Your task to perform on an android device: toggle notifications settings in the gmail app Image 0: 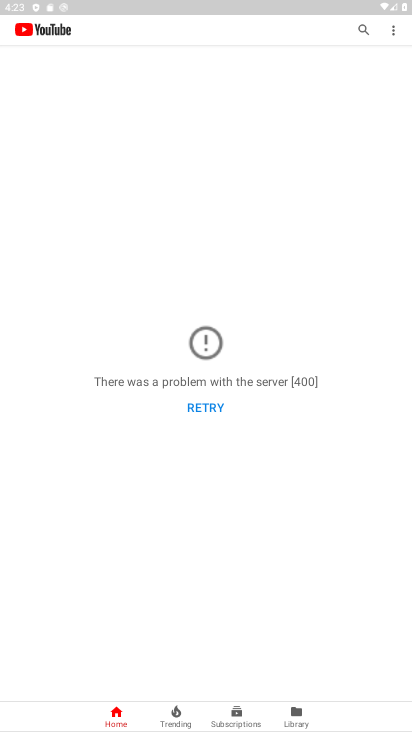
Step 0: press home button
Your task to perform on an android device: toggle notifications settings in the gmail app Image 1: 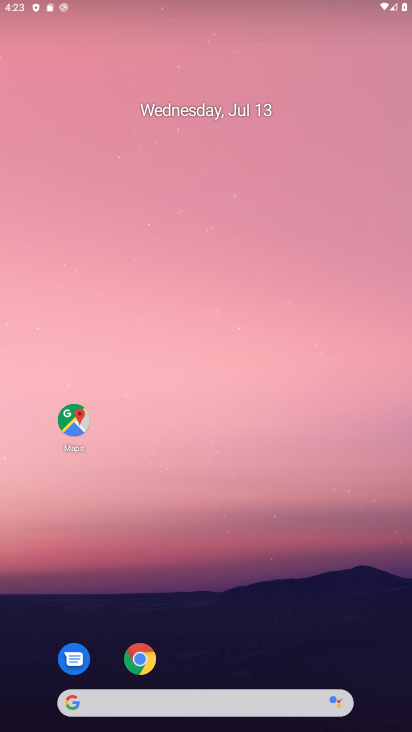
Step 1: drag from (342, 613) to (199, 14)
Your task to perform on an android device: toggle notifications settings in the gmail app Image 2: 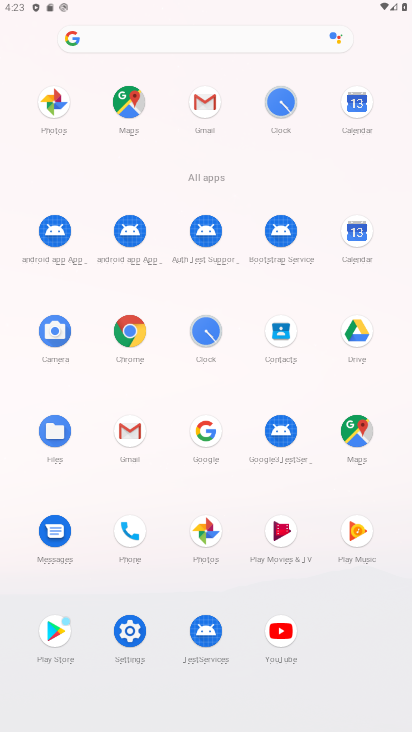
Step 2: click (210, 103)
Your task to perform on an android device: toggle notifications settings in the gmail app Image 3: 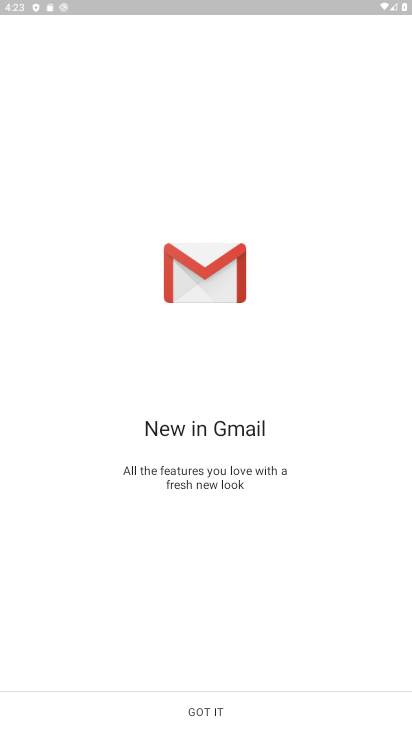
Step 3: click (207, 711)
Your task to perform on an android device: toggle notifications settings in the gmail app Image 4: 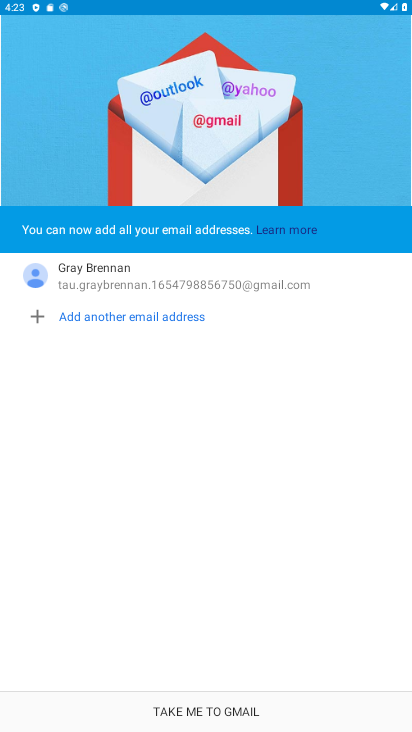
Step 4: click (244, 711)
Your task to perform on an android device: toggle notifications settings in the gmail app Image 5: 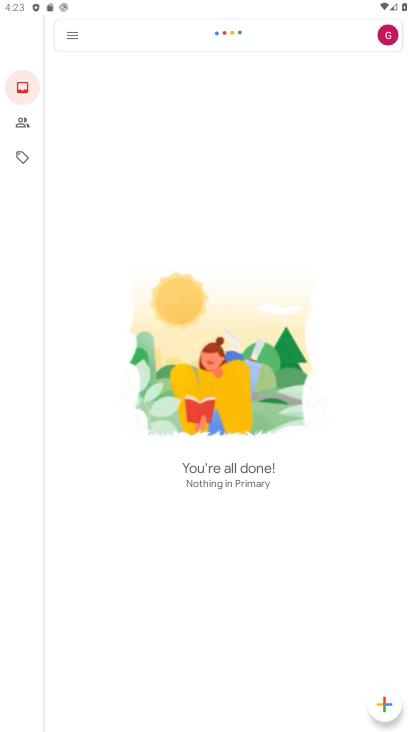
Step 5: click (71, 35)
Your task to perform on an android device: toggle notifications settings in the gmail app Image 6: 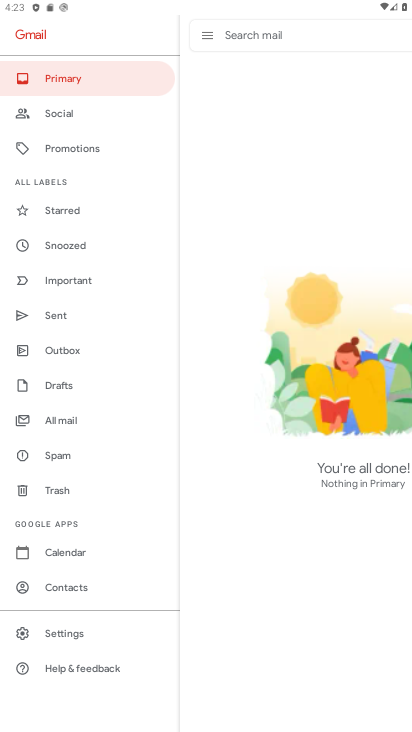
Step 6: click (75, 642)
Your task to perform on an android device: toggle notifications settings in the gmail app Image 7: 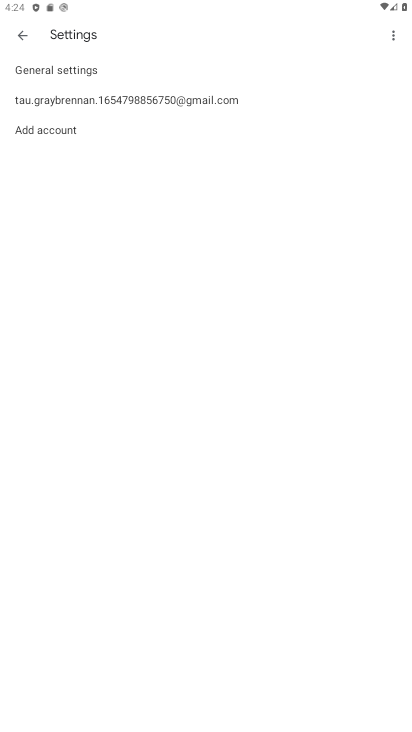
Step 7: click (193, 103)
Your task to perform on an android device: toggle notifications settings in the gmail app Image 8: 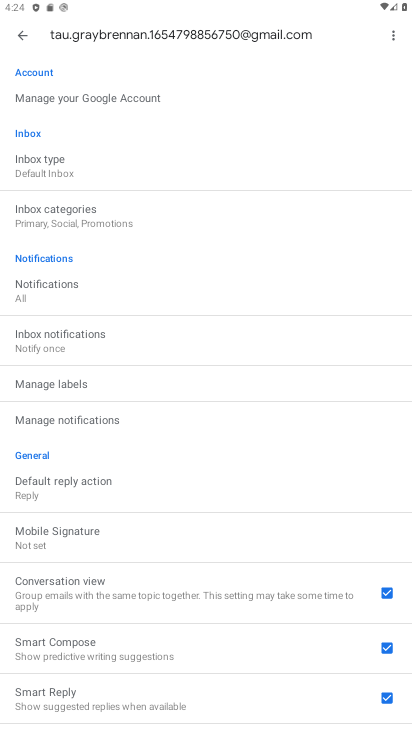
Step 8: click (95, 419)
Your task to perform on an android device: toggle notifications settings in the gmail app Image 9: 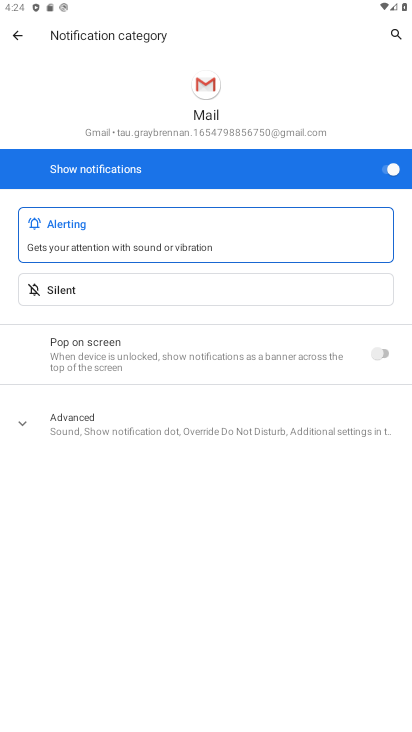
Step 9: click (387, 178)
Your task to perform on an android device: toggle notifications settings in the gmail app Image 10: 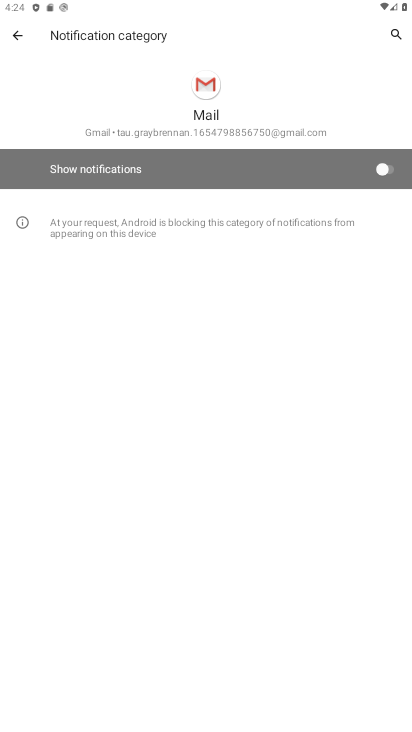
Step 10: task complete